Your task to perform on an android device: change timer sound Image 0: 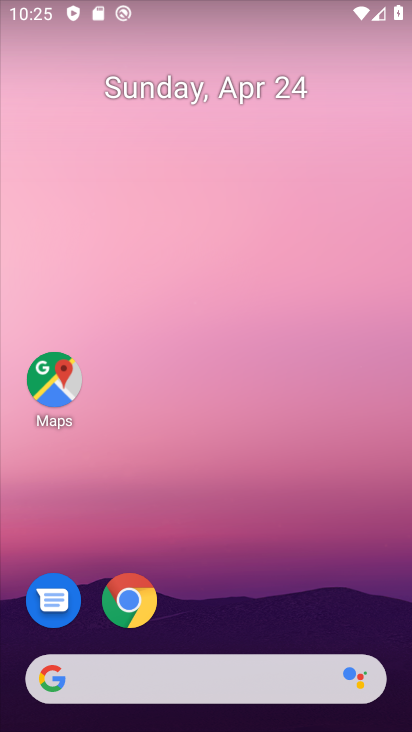
Step 0: drag from (213, 590) to (102, 13)
Your task to perform on an android device: change timer sound Image 1: 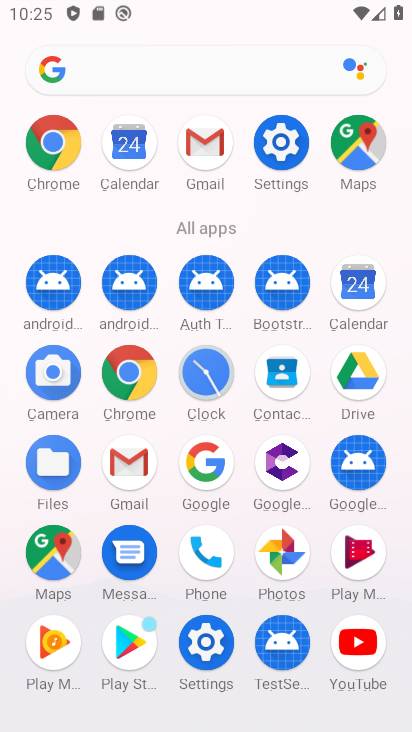
Step 1: click (206, 368)
Your task to perform on an android device: change timer sound Image 2: 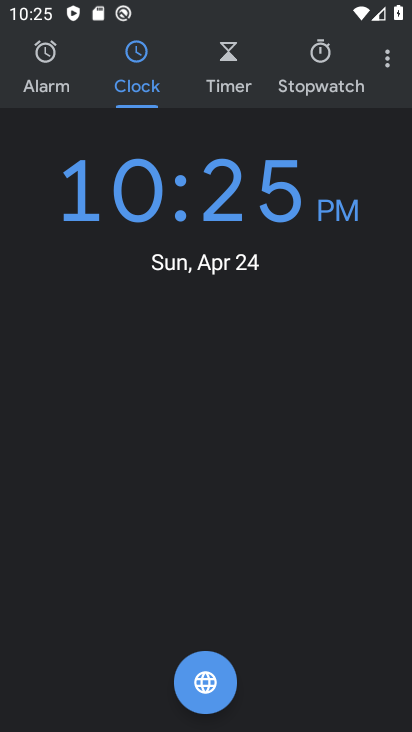
Step 2: click (387, 60)
Your task to perform on an android device: change timer sound Image 3: 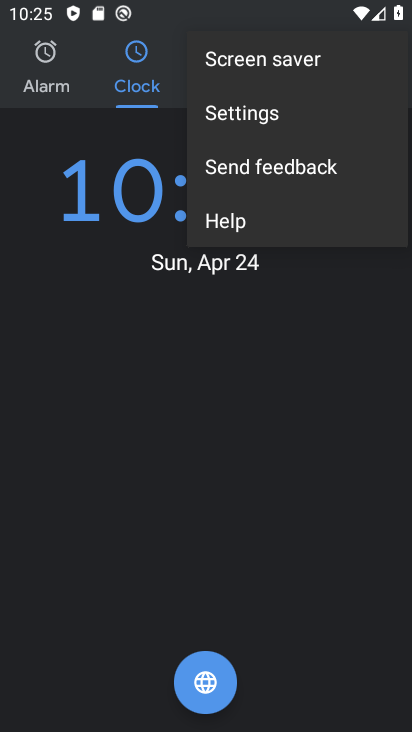
Step 3: click (269, 113)
Your task to perform on an android device: change timer sound Image 4: 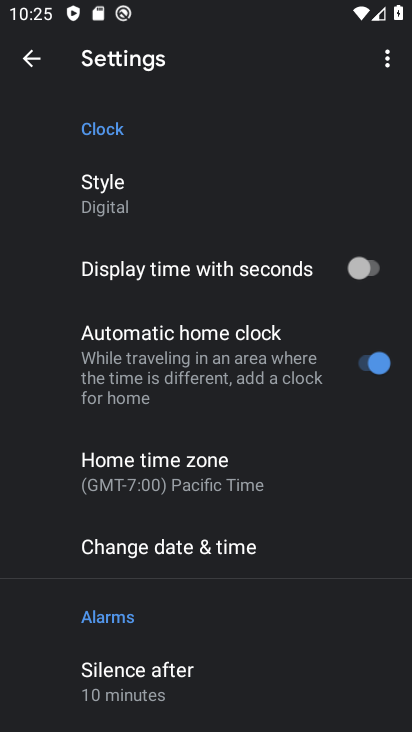
Step 4: drag from (270, 588) to (201, 264)
Your task to perform on an android device: change timer sound Image 5: 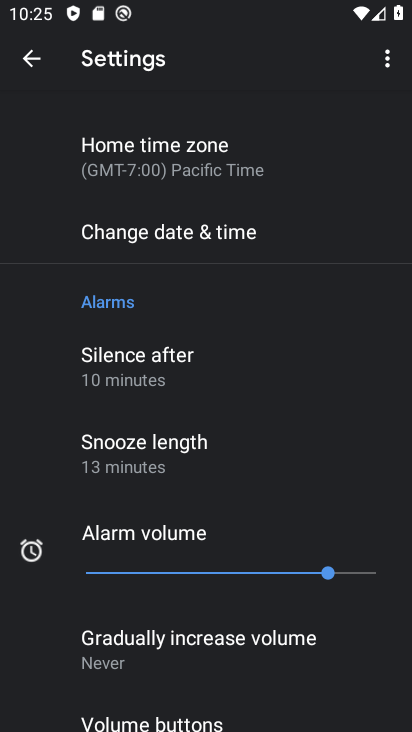
Step 5: drag from (198, 597) to (86, 166)
Your task to perform on an android device: change timer sound Image 6: 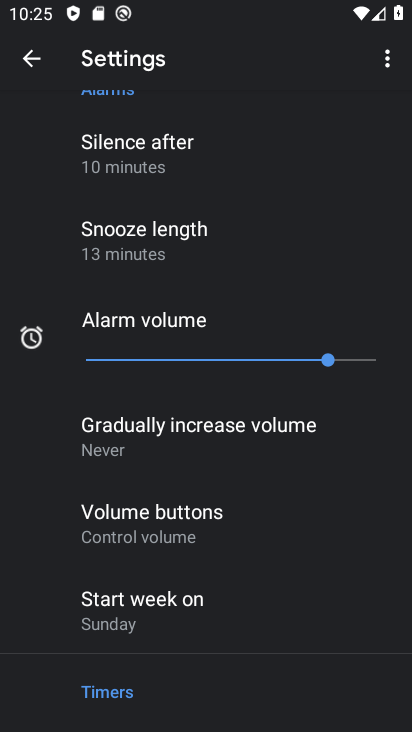
Step 6: drag from (234, 509) to (114, 90)
Your task to perform on an android device: change timer sound Image 7: 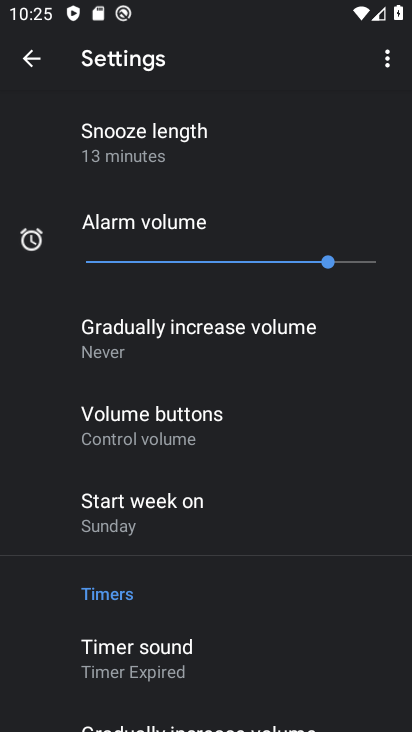
Step 7: click (138, 644)
Your task to perform on an android device: change timer sound Image 8: 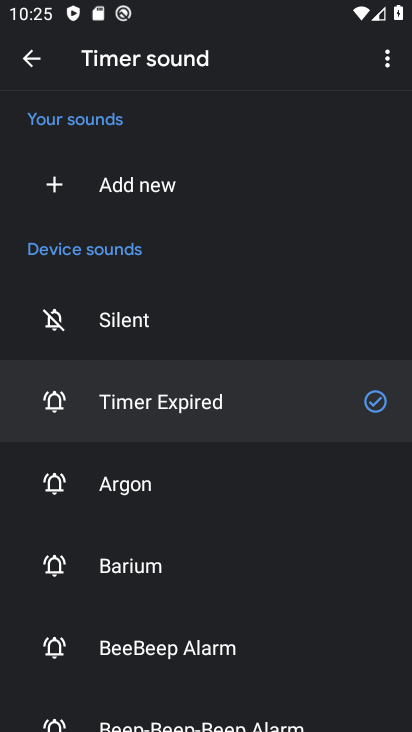
Step 8: click (116, 495)
Your task to perform on an android device: change timer sound Image 9: 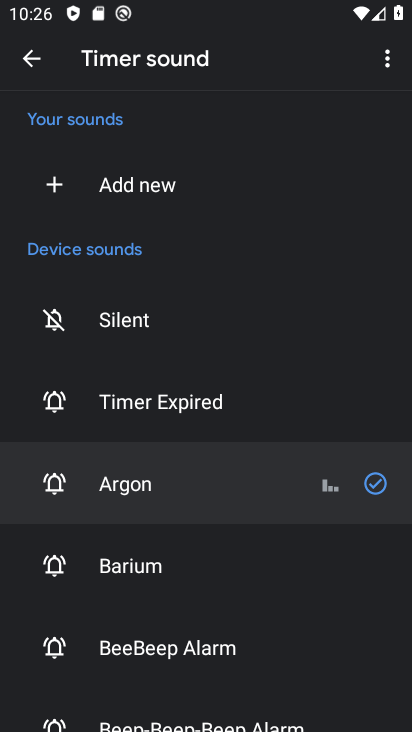
Step 9: task complete